Your task to perform on an android device: Open calendar and show me the fourth week of next month Image 0: 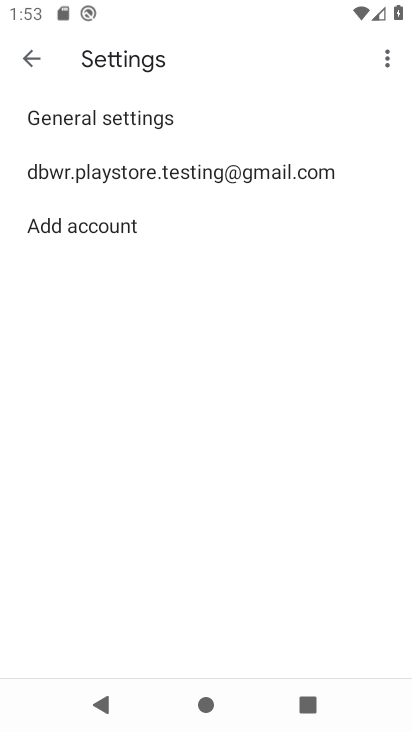
Step 0: press home button
Your task to perform on an android device: Open calendar and show me the fourth week of next month Image 1: 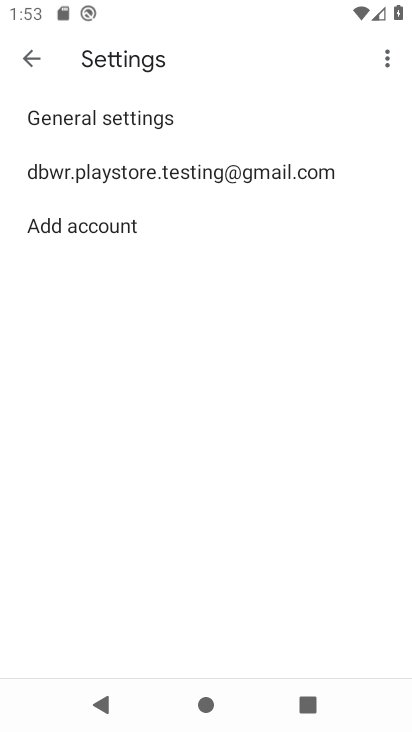
Step 1: press home button
Your task to perform on an android device: Open calendar and show me the fourth week of next month Image 2: 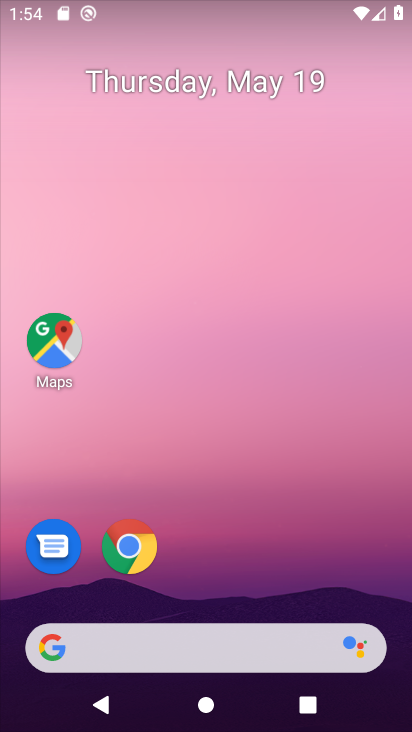
Step 2: drag from (224, 515) to (265, 97)
Your task to perform on an android device: Open calendar and show me the fourth week of next month Image 3: 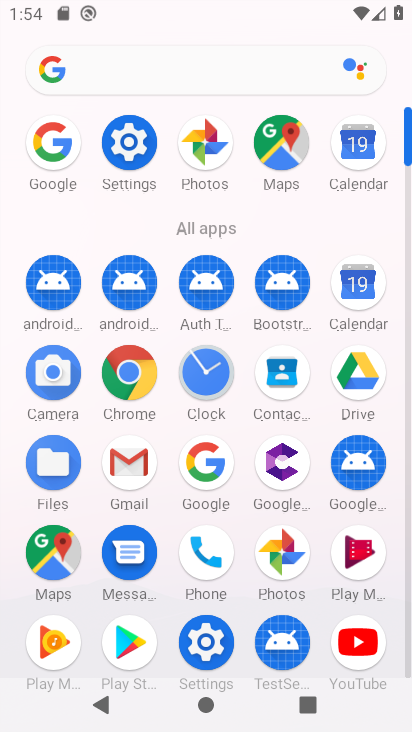
Step 3: click (357, 277)
Your task to perform on an android device: Open calendar and show me the fourth week of next month Image 4: 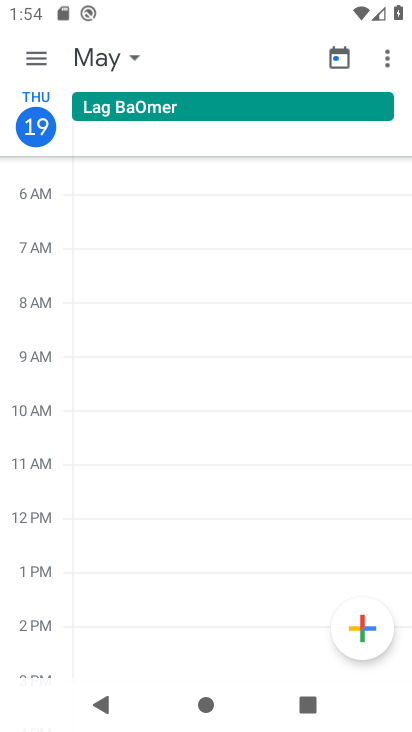
Step 4: click (62, 138)
Your task to perform on an android device: Open calendar and show me the fourth week of next month Image 5: 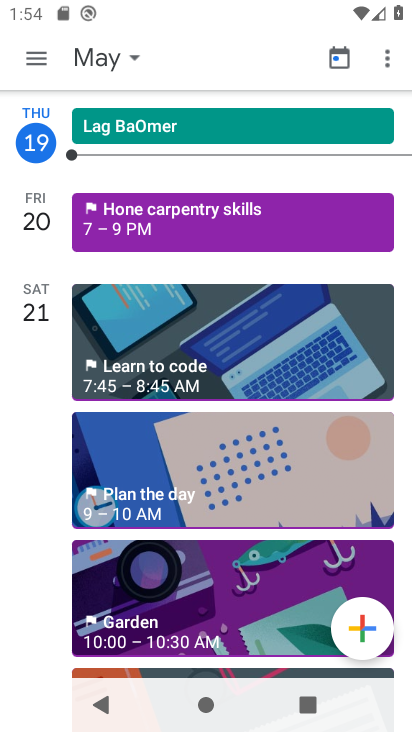
Step 5: click (136, 59)
Your task to perform on an android device: Open calendar and show me the fourth week of next month Image 6: 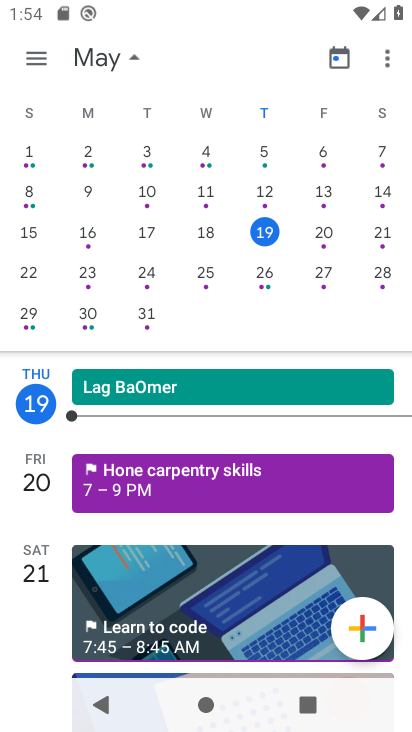
Step 6: drag from (376, 185) to (1, 190)
Your task to perform on an android device: Open calendar and show me the fourth week of next month Image 7: 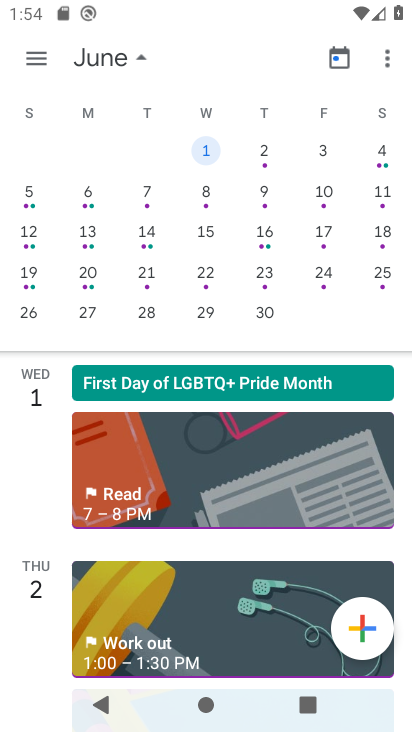
Step 7: click (30, 276)
Your task to perform on an android device: Open calendar and show me the fourth week of next month Image 8: 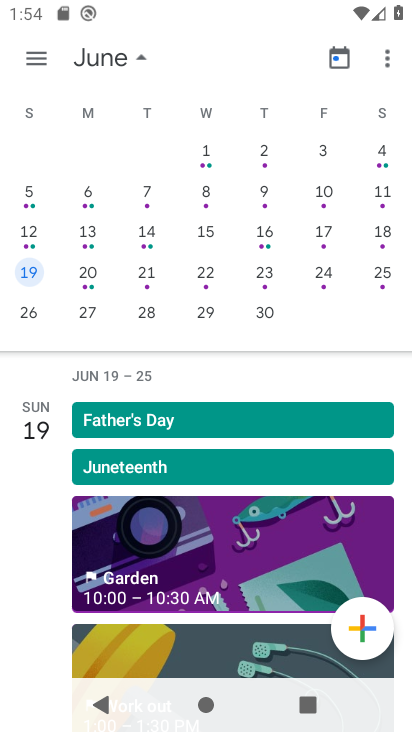
Step 8: click (148, 45)
Your task to perform on an android device: Open calendar and show me the fourth week of next month Image 9: 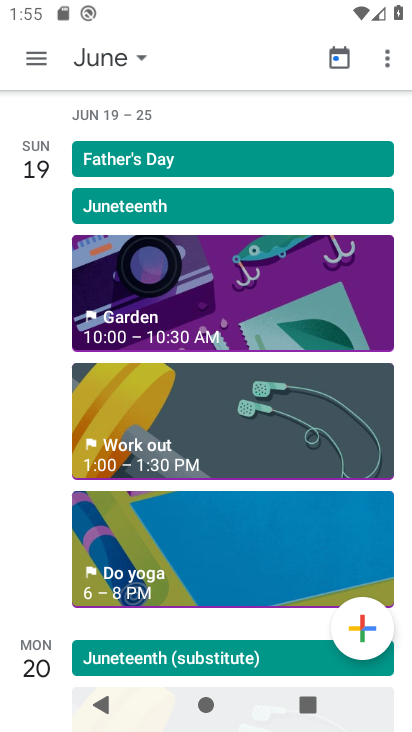
Step 9: drag from (38, 425) to (45, 183)
Your task to perform on an android device: Open calendar and show me the fourth week of next month Image 10: 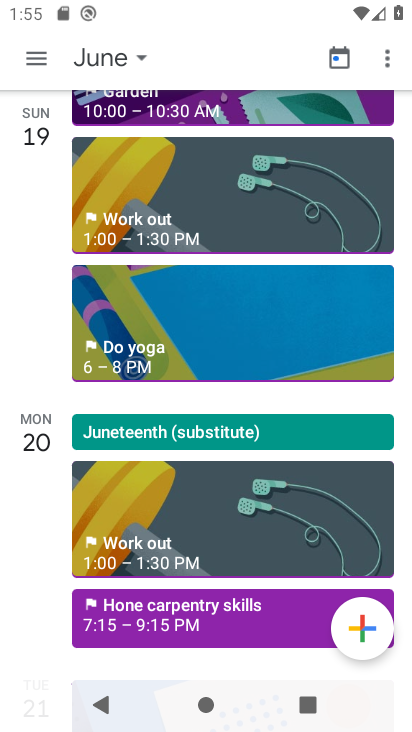
Step 10: click (56, 122)
Your task to perform on an android device: Open calendar and show me the fourth week of next month Image 11: 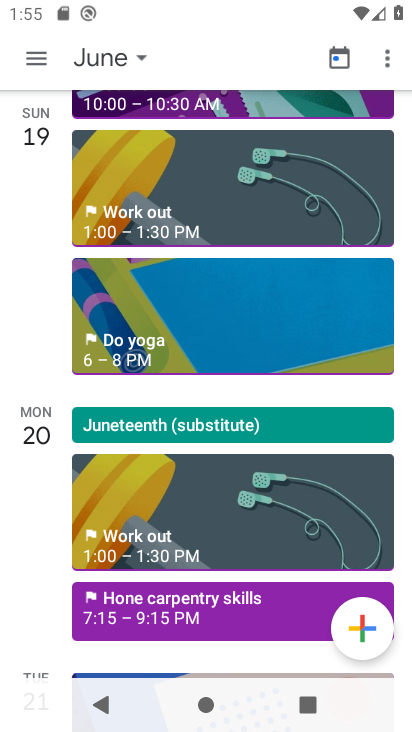
Step 11: drag from (54, 495) to (70, 151)
Your task to perform on an android device: Open calendar and show me the fourth week of next month Image 12: 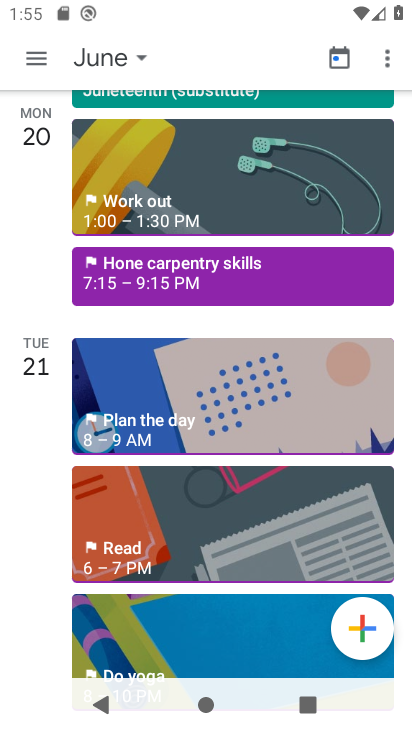
Step 12: drag from (41, 513) to (60, 220)
Your task to perform on an android device: Open calendar and show me the fourth week of next month Image 13: 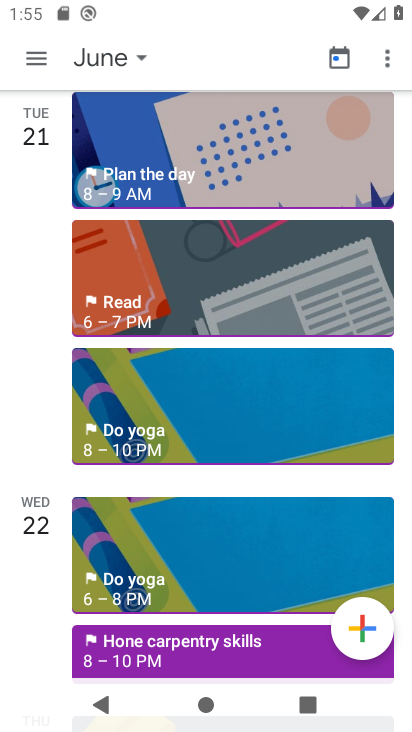
Step 13: click (63, 198)
Your task to perform on an android device: Open calendar and show me the fourth week of next month Image 14: 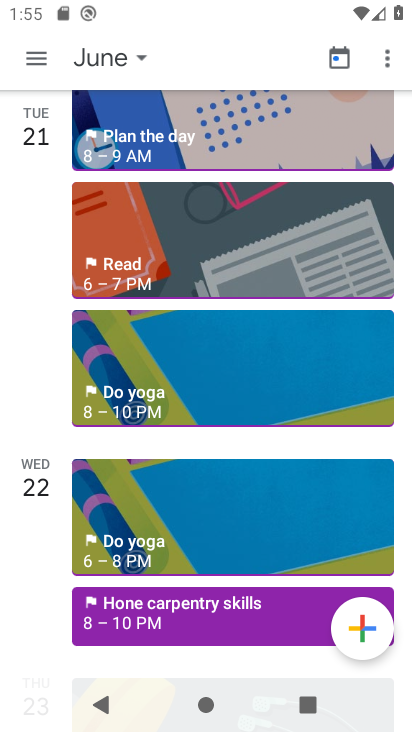
Step 14: task complete